Your task to perform on an android device: Search for duracell triple a on walmart, select the first entry, and add it to the cart. Image 0: 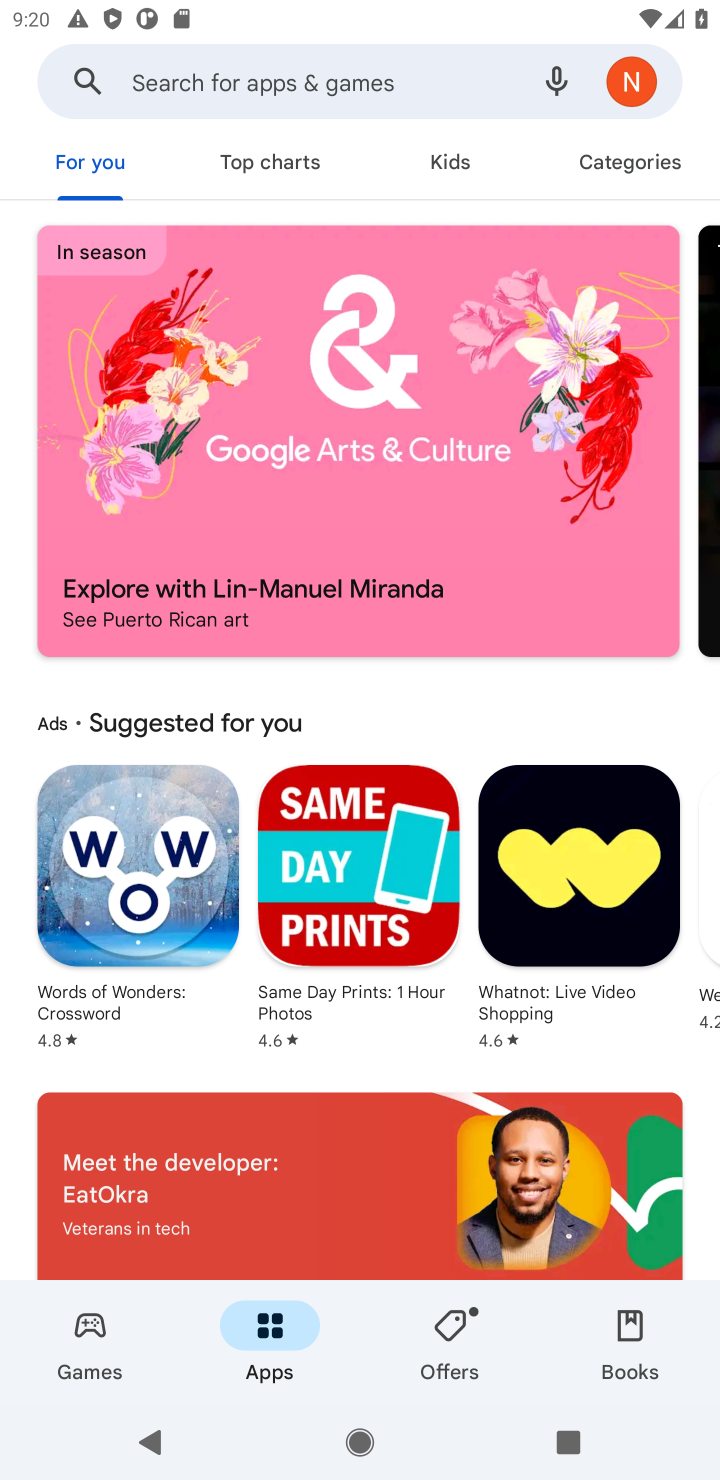
Step 0: task complete